Your task to perform on an android device: turn off notifications in google photos Image 0: 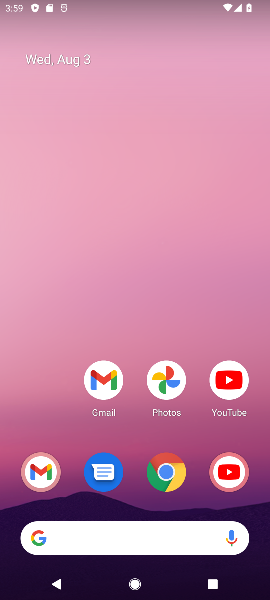
Step 0: drag from (202, 505) to (82, 9)
Your task to perform on an android device: turn off notifications in google photos Image 1: 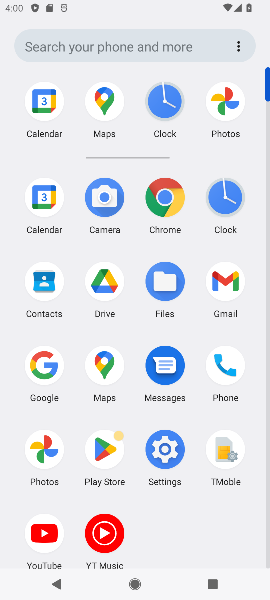
Step 1: click (44, 443)
Your task to perform on an android device: turn off notifications in google photos Image 2: 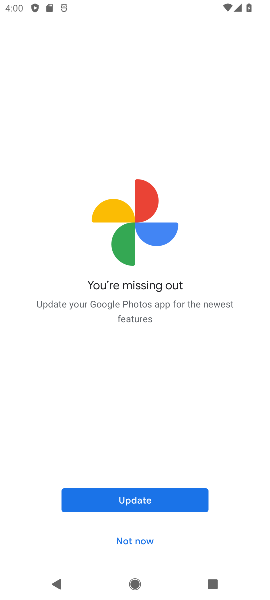
Step 2: click (115, 498)
Your task to perform on an android device: turn off notifications in google photos Image 3: 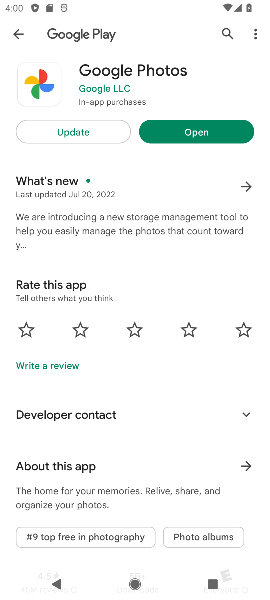
Step 3: click (106, 135)
Your task to perform on an android device: turn off notifications in google photos Image 4: 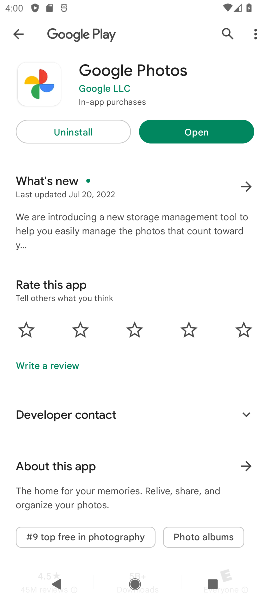
Step 4: click (202, 128)
Your task to perform on an android device: turn off notifications in google photos Image 5: 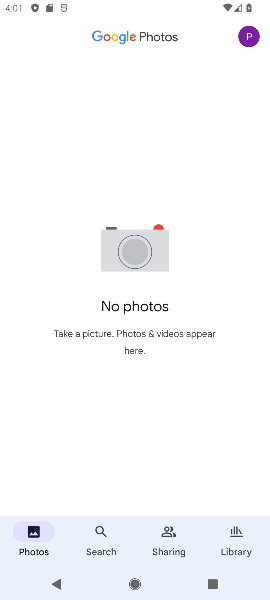
Step 5: click (243, 35)
Your task to perform on an android device: turn off notifications in google photos Image 6: 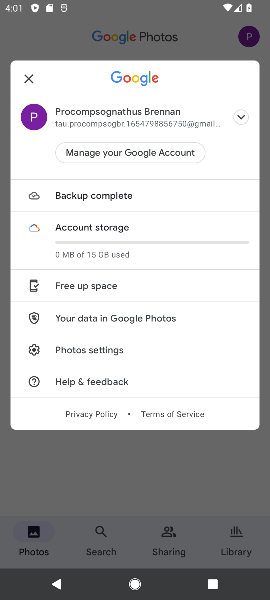
Step 6: click (89, 348)
Your task to perform on an android device: turn off notifications in google photos Image 7: 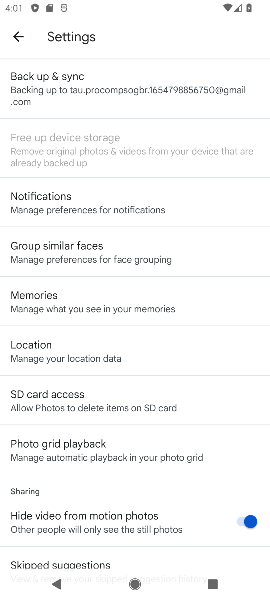
Step 7: click (116, 206)
Your task to perform on an android device: turn off notifications in google photos Image 8: 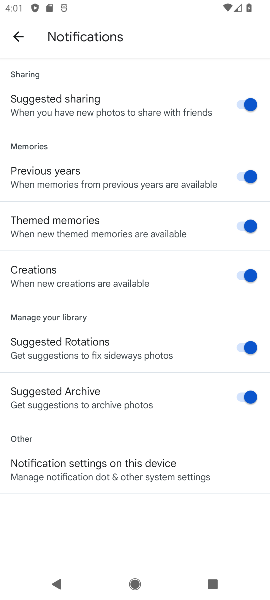
Step 8: click (223, 116)
Your task to perform on an android device: turn off notifications in google photos Image 9: 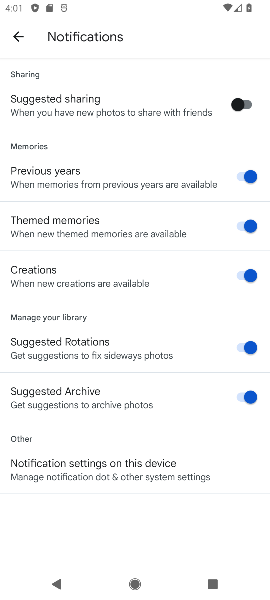
Step 9: task complete